Your task to perform on an android device: Open internet settings Image 0: 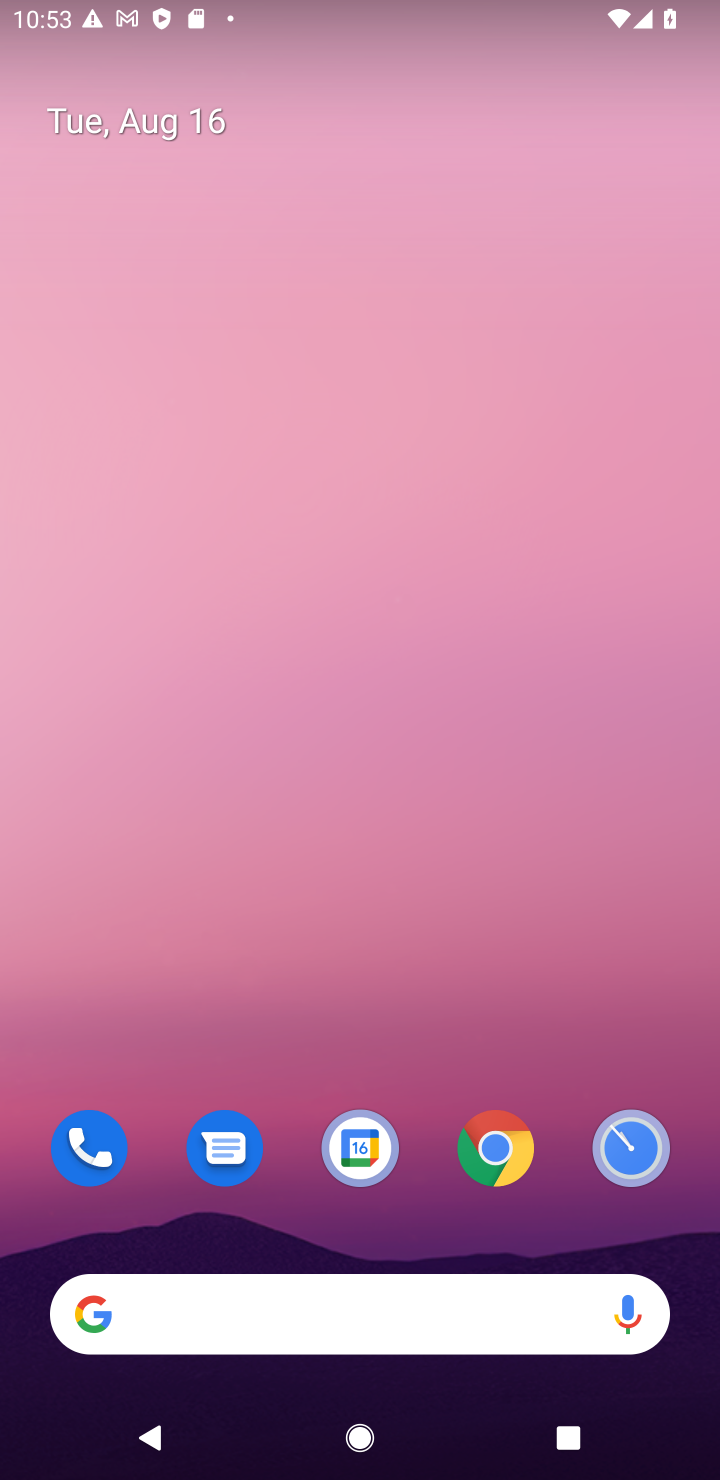
Step 0: press home button
Your task to perform on an android device: Open internet settings Image 1: 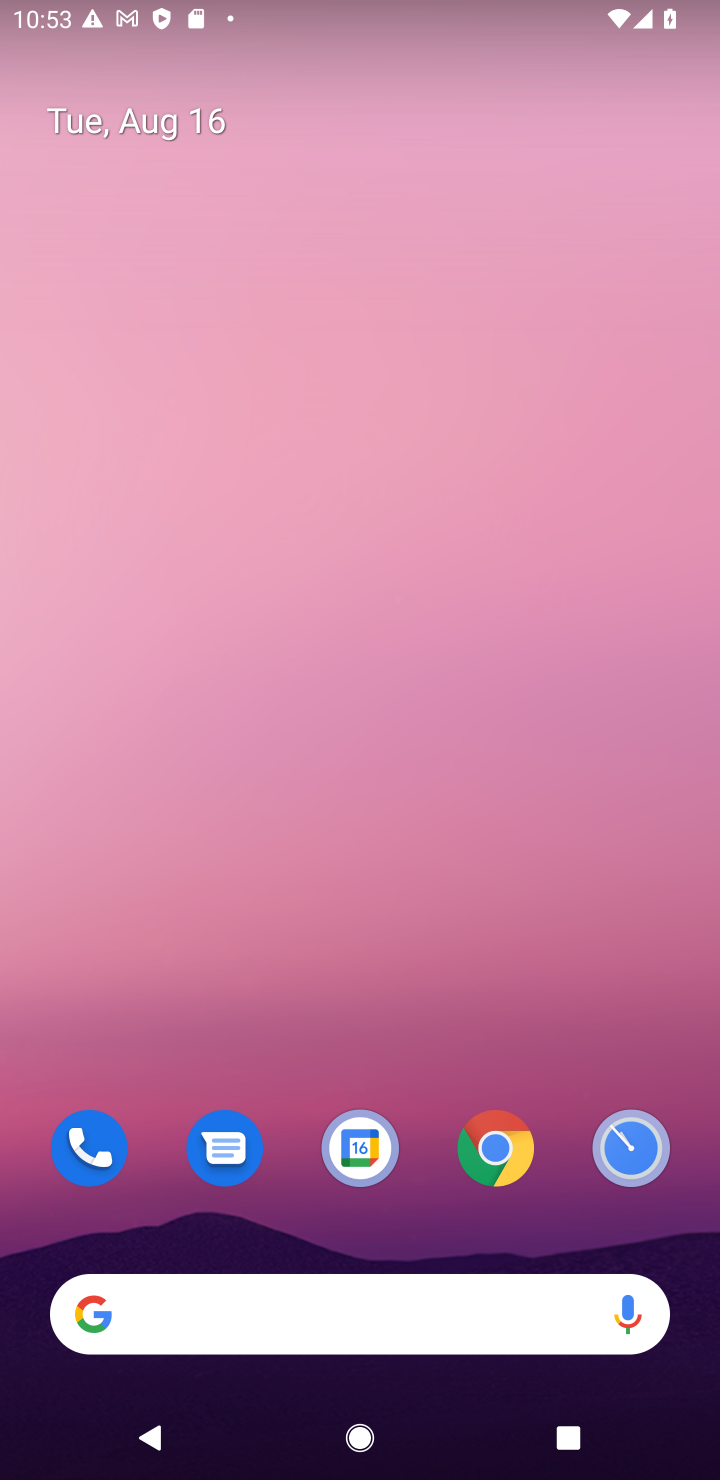
Step 1: drag from (282, 1187) to (215, 3)
Your task to perform on an android device: Open internet settings Image 2: 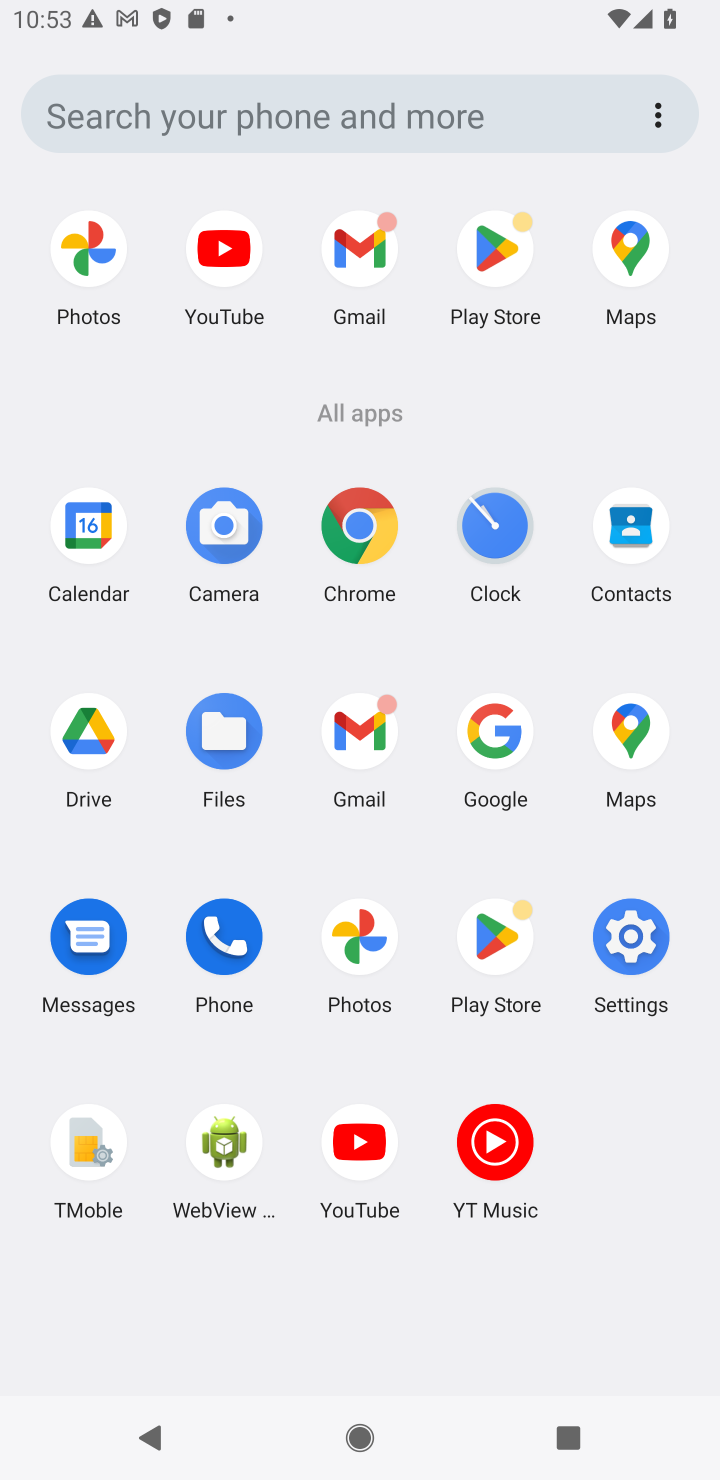
Step 2: click (642, 963)
Your task to perform on an android device: Open internet settings Image 3: 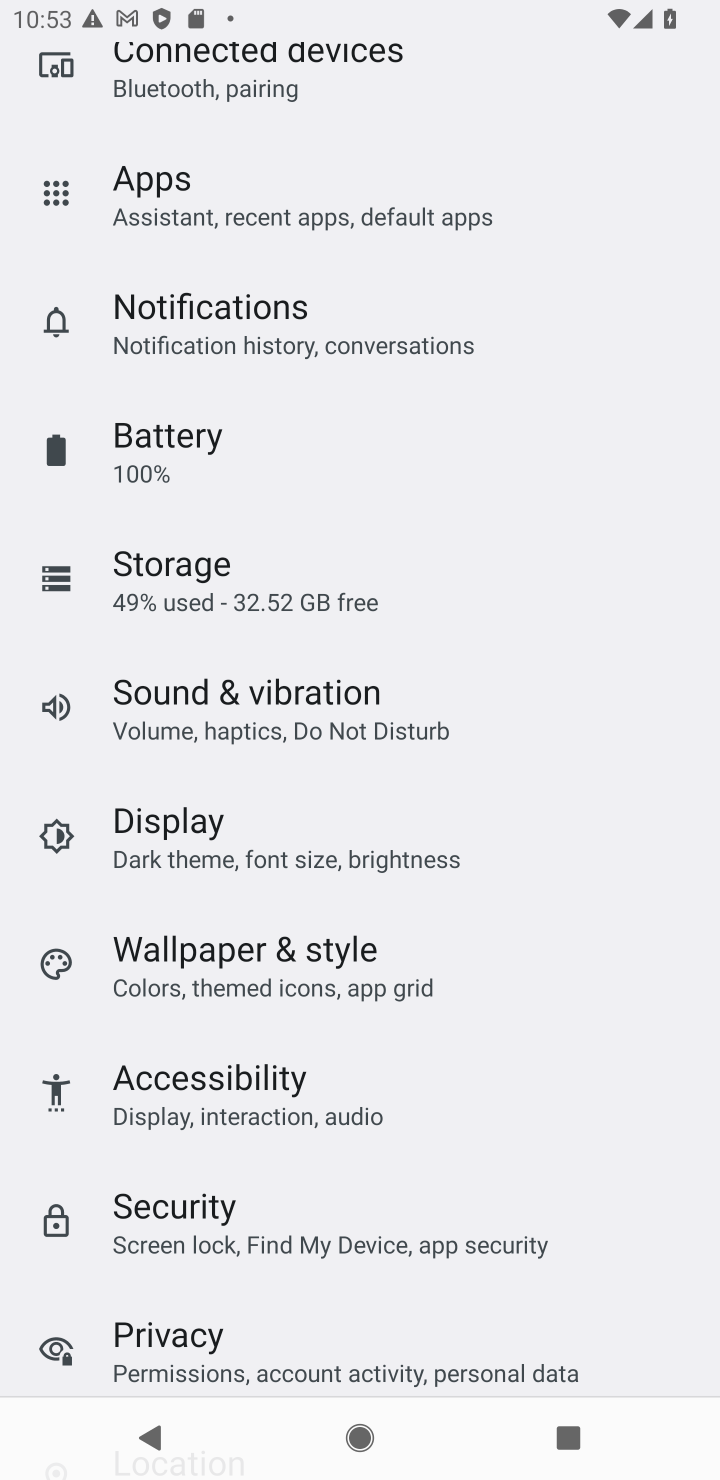
Step 3: drag from (360, 293) to (413, 1472)
Your task to perform on an android device: Open internet settings Image 4: 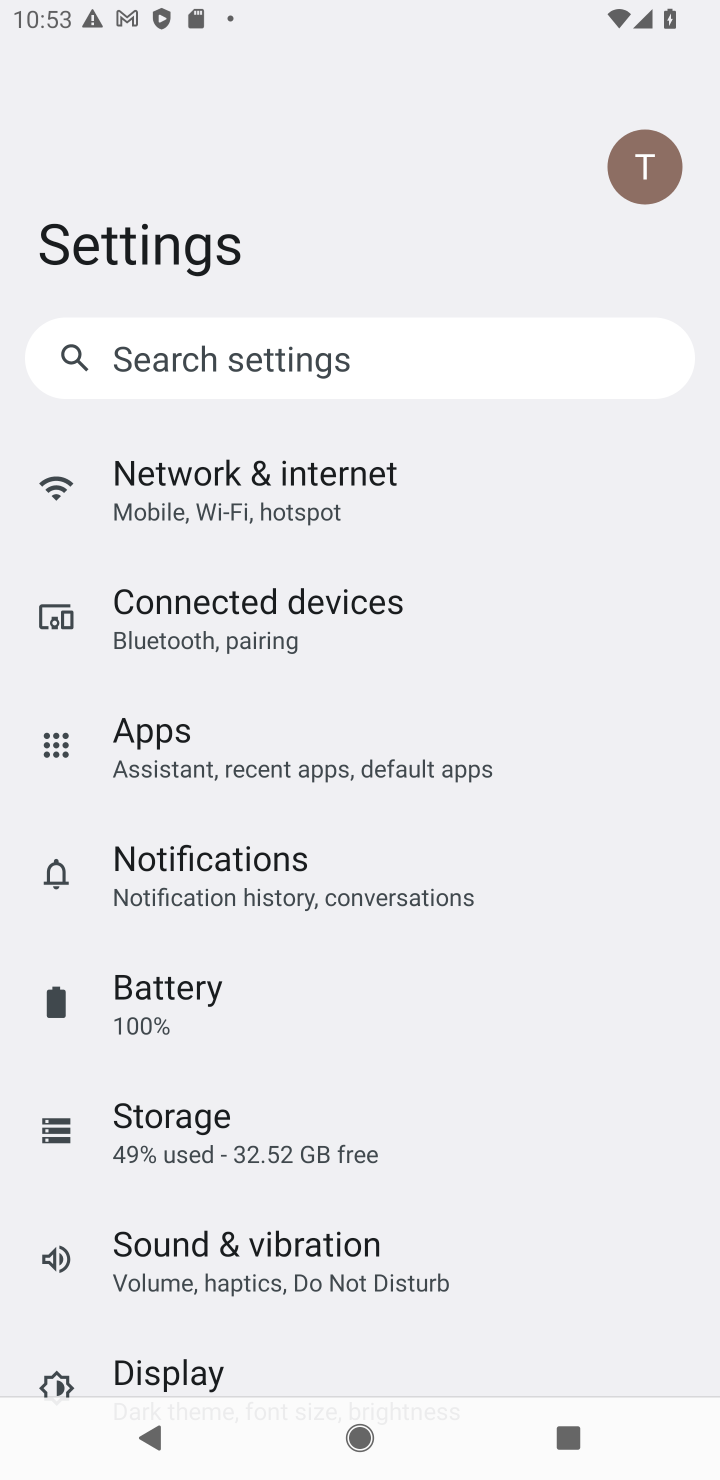
Step 4: click (203, 484)
Your task to perform on an android device: Open internet settings Image 5: 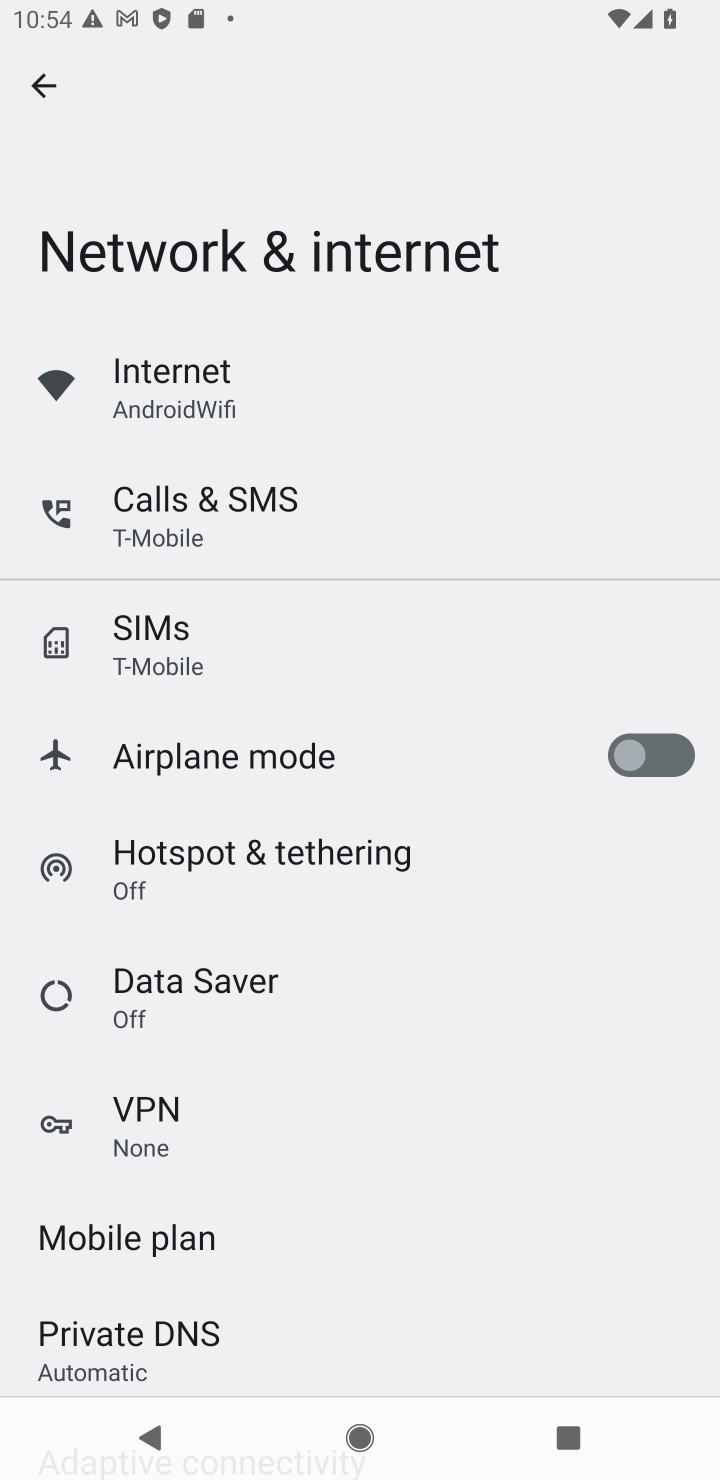
Step 5: task complete